Your task to perform on an android device: change notification settings in the gmail app Image 0: 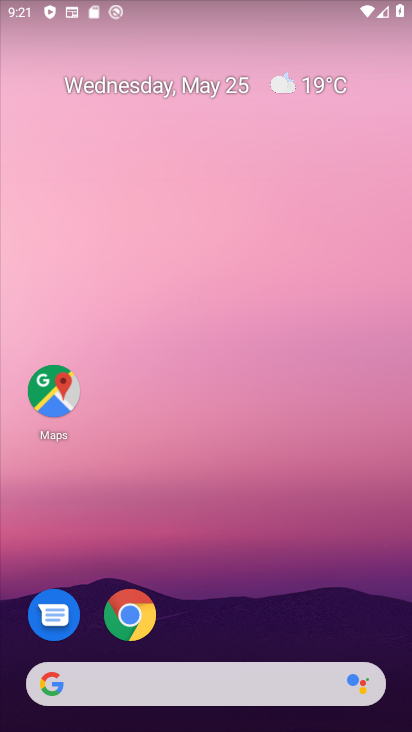
Step 0: drag from (270, 676) to (224, 177)
Your task to perform on an android device: change notification settings in the gmail app Image 1: 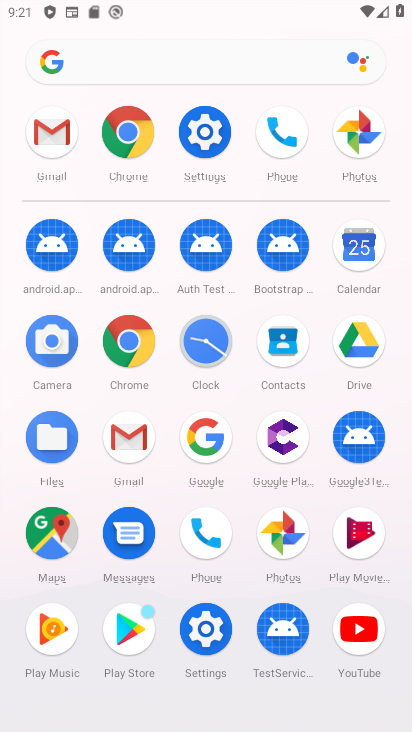
Step 1: click (140, 438)
Your task to perform on an android device: change notification settings in the gmail app Image 2: 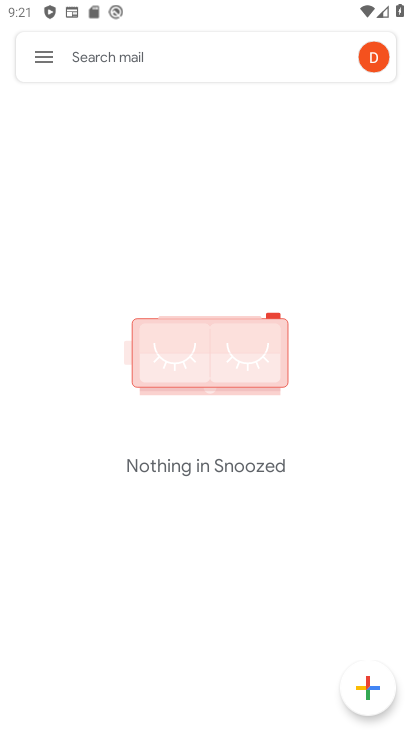
Step 2: click (43, 61)
Your task to perform on an android device: change notification settings in the gmail app Image 3: 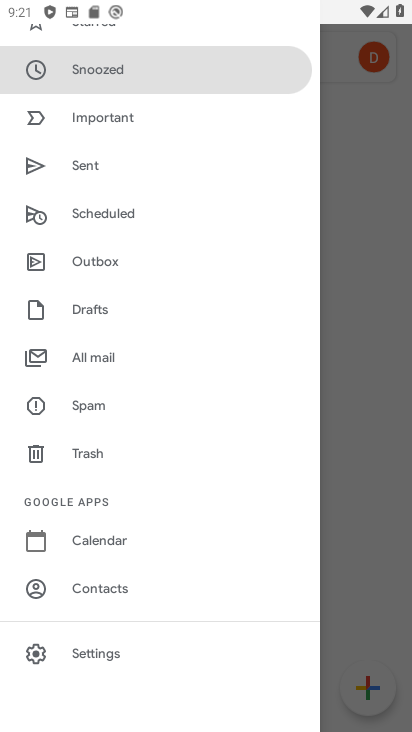
Step 3: click (87, 655)
Your task to perform on an android device: change notification settings in the gmail app Image 4: 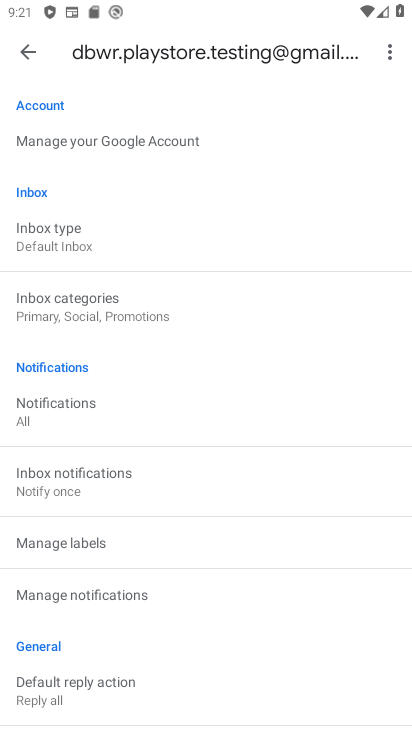
Step 4: click (61, 416)
Your task to perform on an android device: change notification settings in the gmail app Image 5: 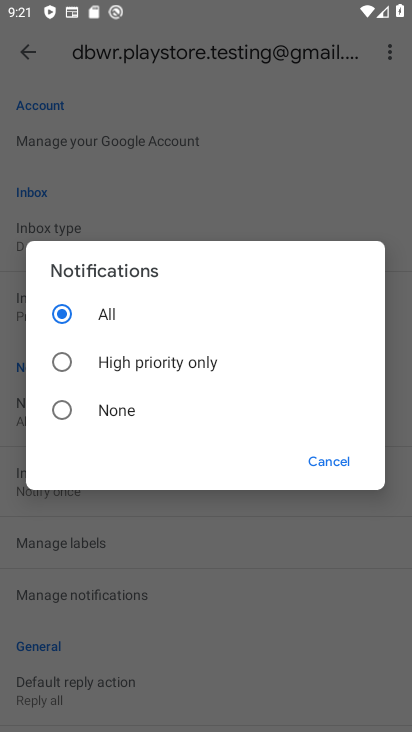
Step 5: task complete